Your task to perform on an android device: find which apps use the phone's location Image 0: 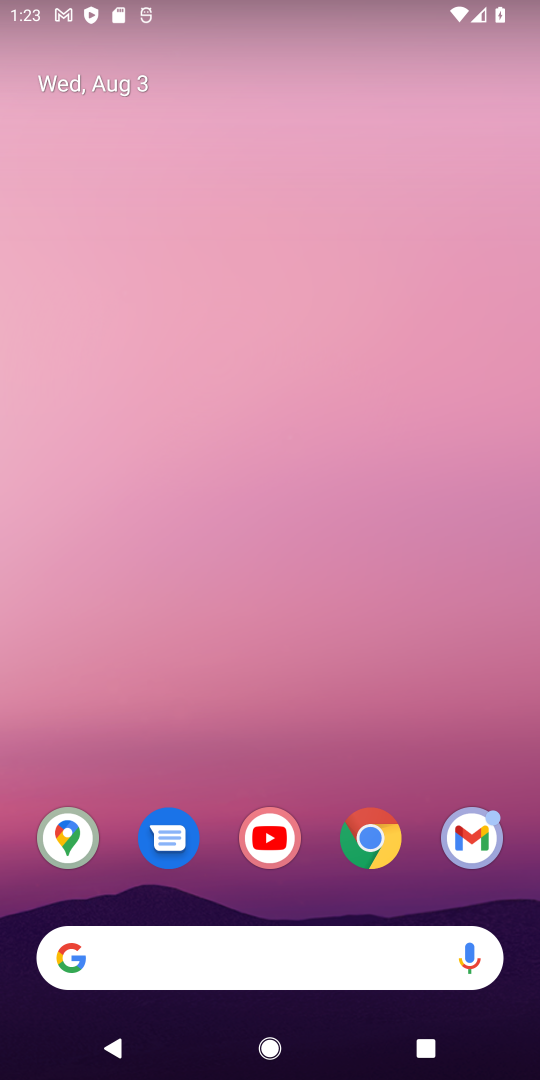
Step 0: drag from (198, 730) to (244, 0)
Your task to perform on an android device: find which apps use the phone's location Image 1: 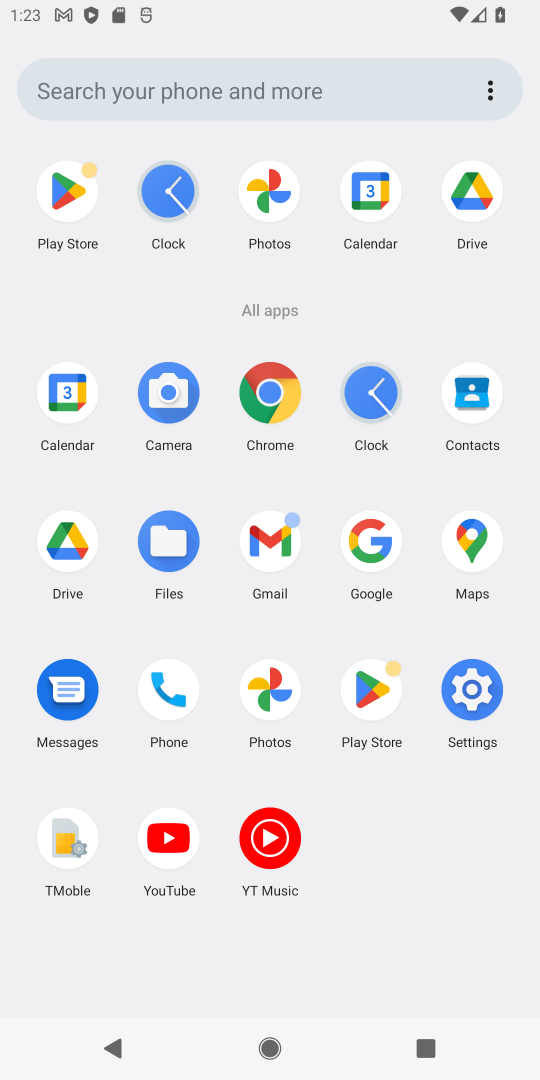
Step 1: click (466, 693)
Your task to perform on an android device: find which apps use the phone's location Image 2: 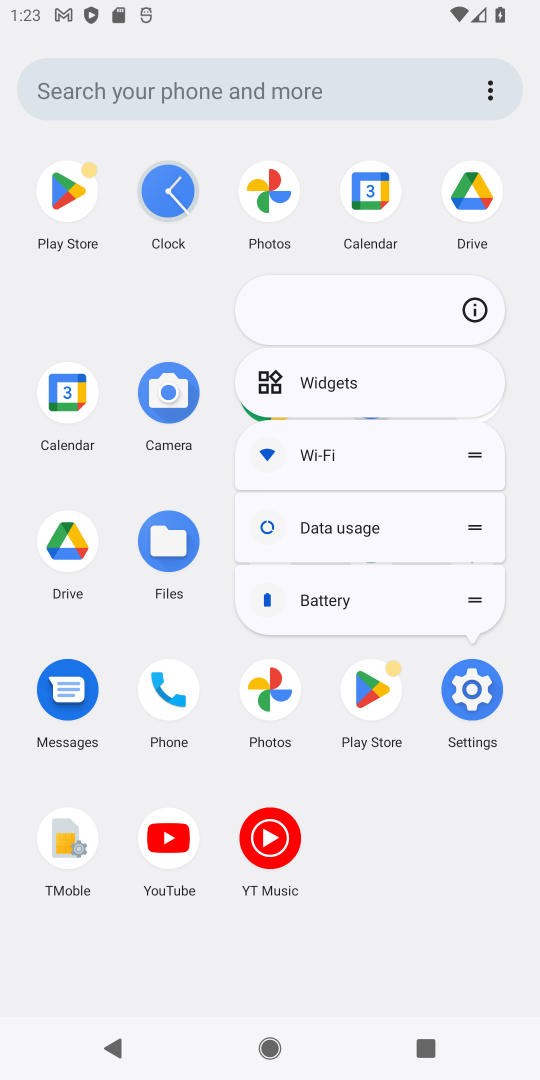
Step 2: click (467, 691)
Your task to perform on an android device: find which apps use the phone's location Image 3: 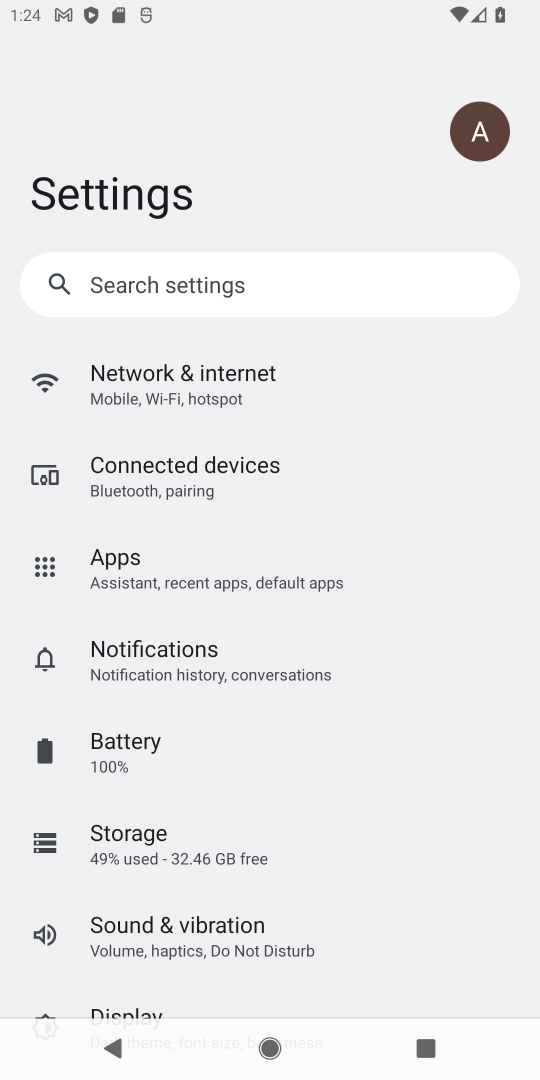
Step 3: drag from (183, 955) to (344, 314)
Your task to perform on an android device: find which apps use the phone's location Image 4: 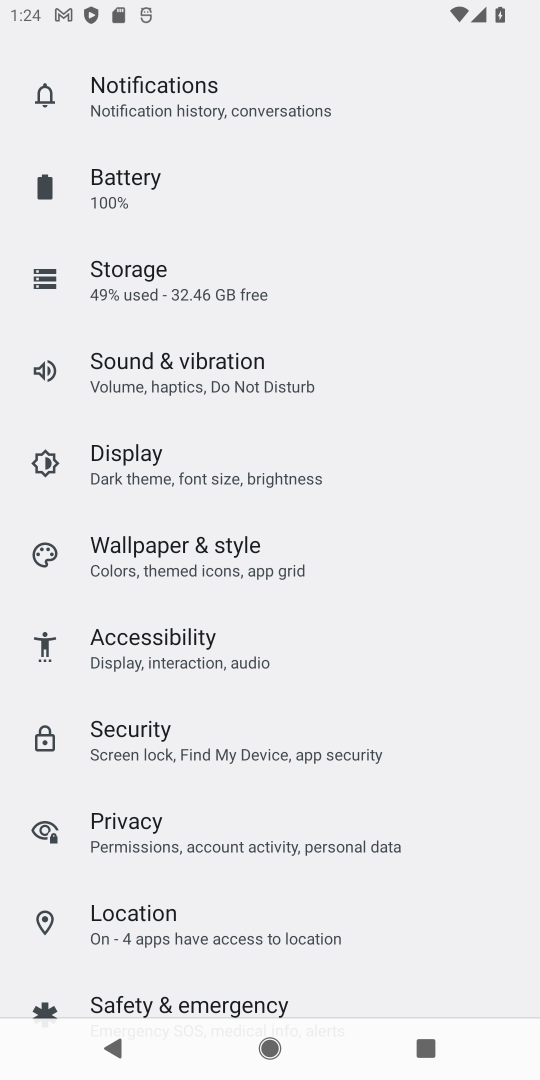
Step 4: click (136, 932)
Your task to perform on an android device: find which apps use the phone's location Image 5: 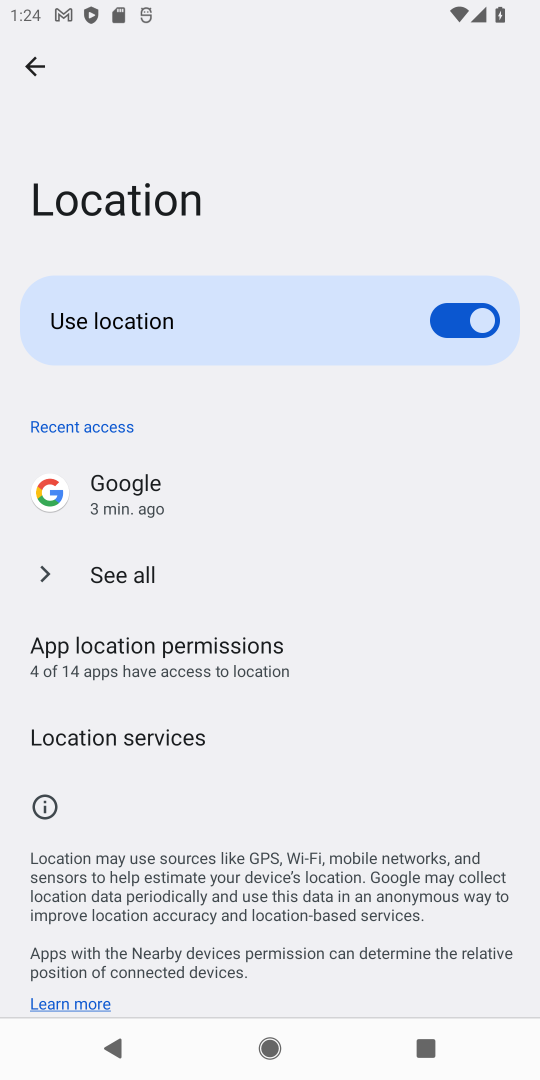
Step 5: click (128, 642)
Your task to perform on an android device: find which apps use the phone's location Image 6: 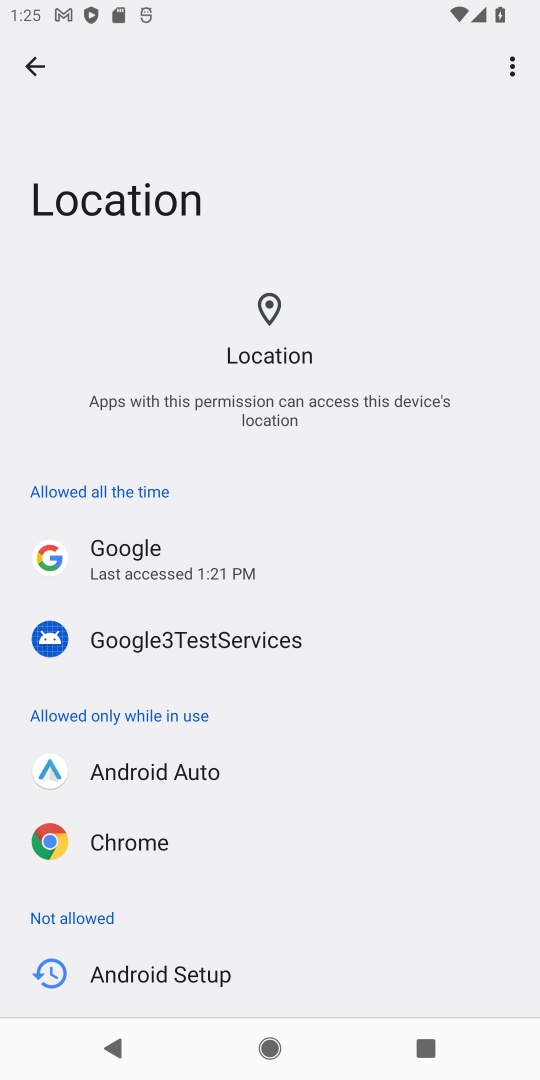
Step 6: task complete